Your task to perform on an android device: Open display settings Image 0: 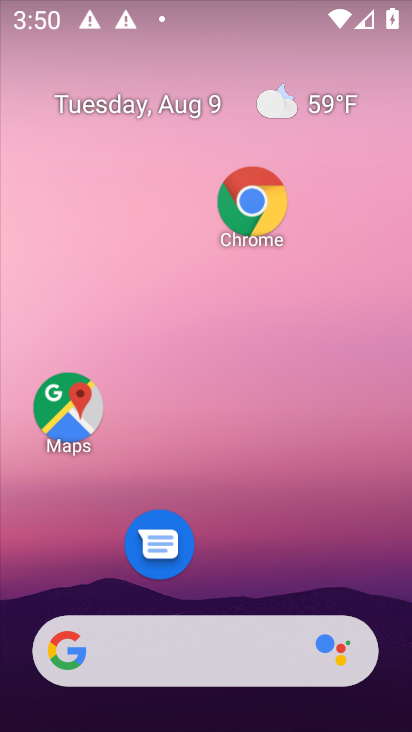
Step 0: drag from (167, 607) to (190, 291)
Your task to perform on an android device: Open display settings Image 1: 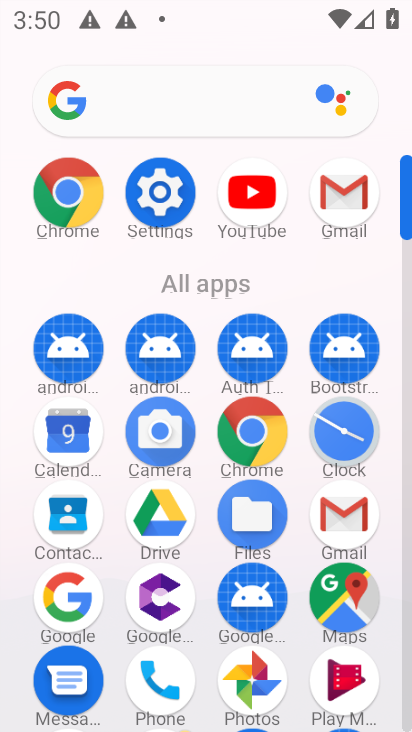
Step 1: click (150, 200)
Your task to perform on an android device: Open display settings Image 2: 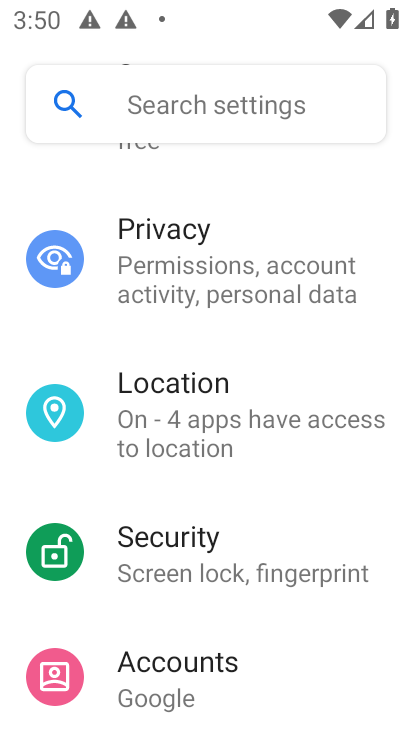
Step 2: drag from (153, 389) to (154, 266)
Your task to perform on an android device: Open display settings Image 3: 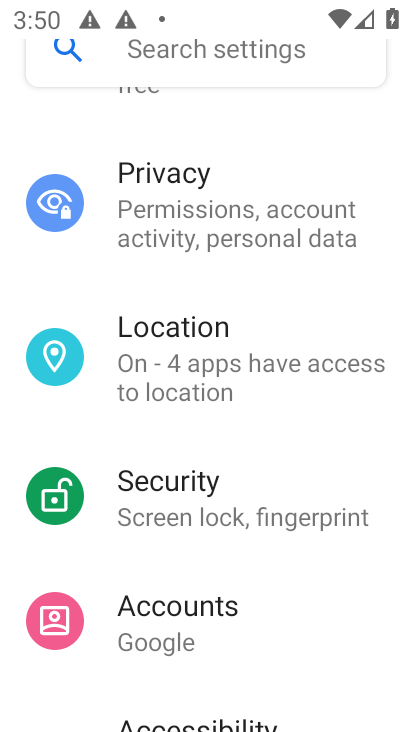
Step 3: drag from (187, 633) to (185, 317)
Your task to perform on an android device: Open display settings Image 4: 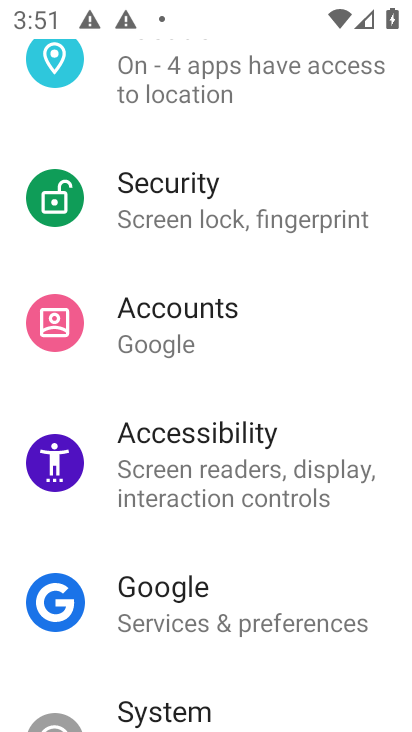
Step 4: drag from (205, 180) to (231, 611)
Your task to perform on an android device: Open display settings Image 5: 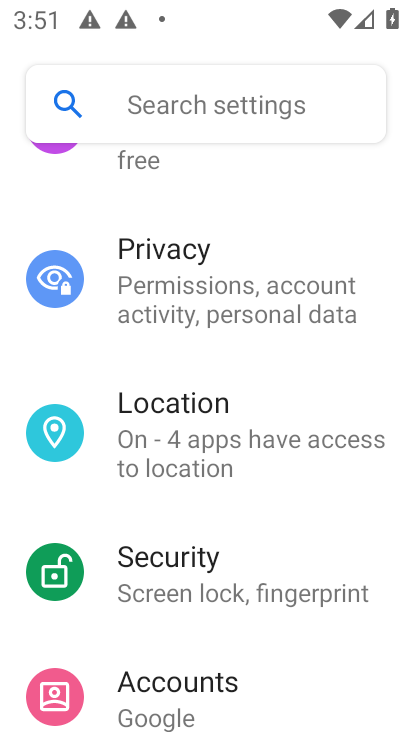
Step 5: drag from (216, 155) to (236, 557)
Your task to perform on an android device: Open display settings Image 6: 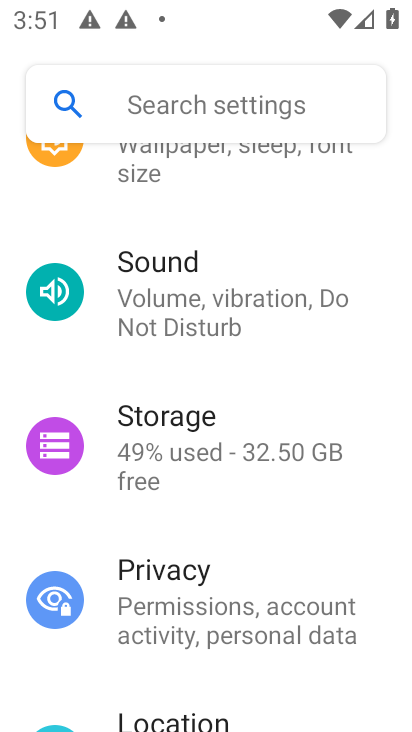
Step 6: drag from (233, 183) to (249, 551)
Your task to perform on an android device: Open display settings Image 7: 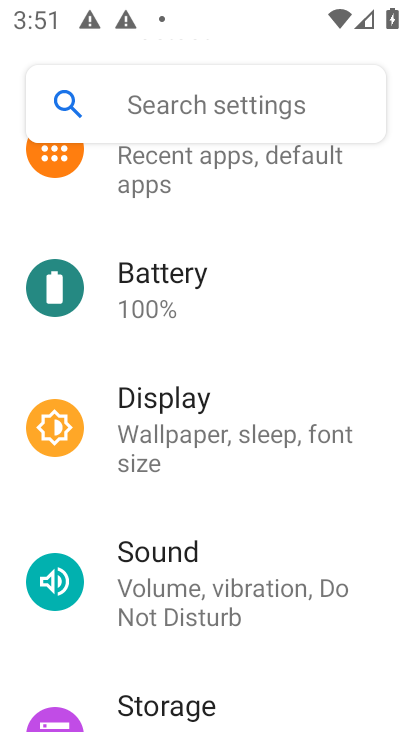
Step 7: drag from (181, 208) to (185, 581)
Your task to perform on an android device: Open display settings Image 8: 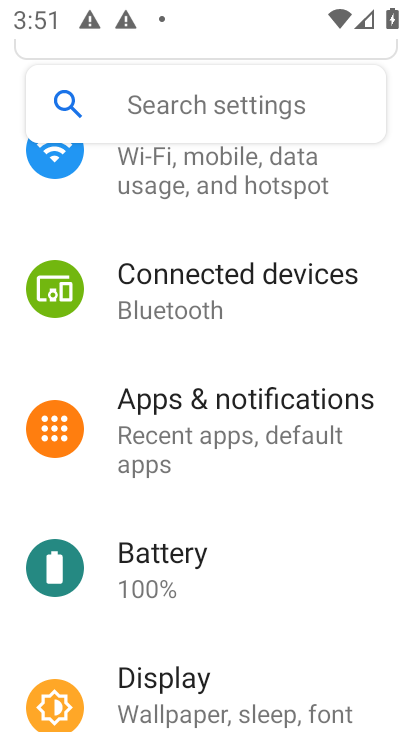
Step 8: drag from (162, 221) to (167, 596)
Your task to perform on an android device: Open display settings Image 9: 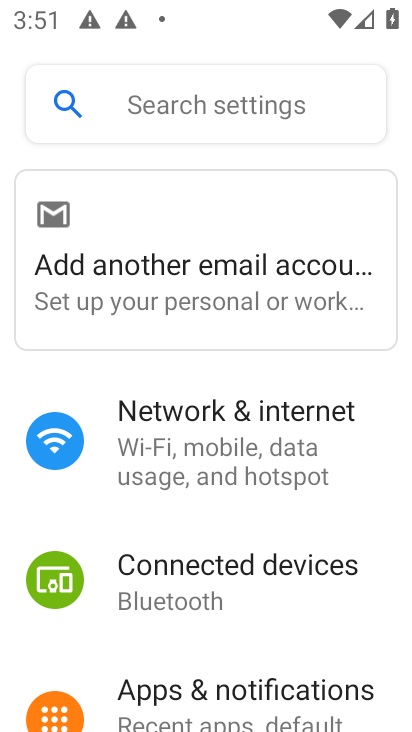
Step 9: drag from (167, 674) to (180, 363)
Your task to perform on an android device: Open display settings Image 10: 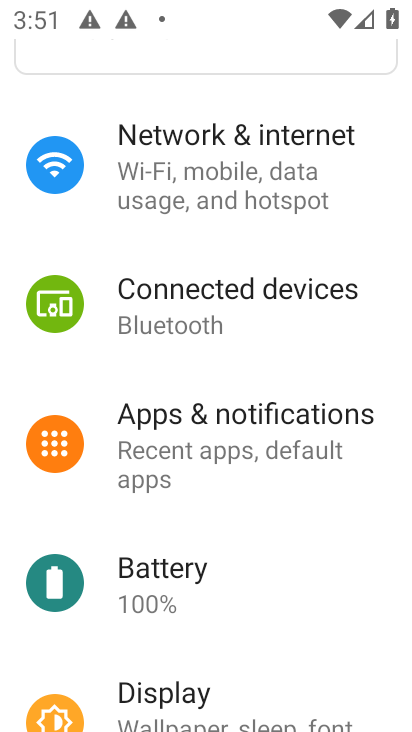
Step 10: click (176, 696)
Your task to perform on an android device: Open display settings Image 11: 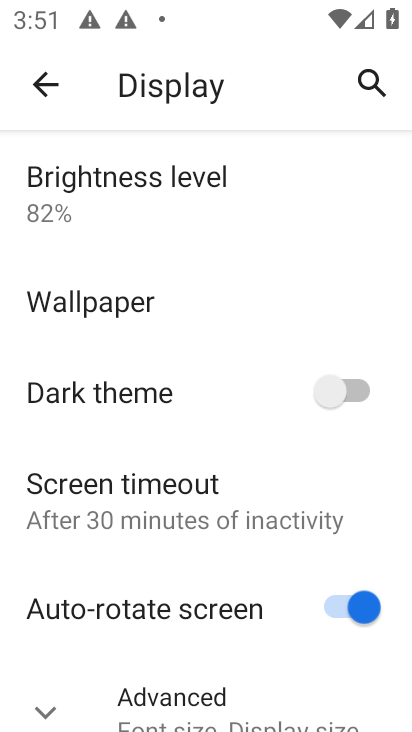
Step 11: drag from (200, 702) to (198, 345)
Your task to perform on an android device: Open display settings Image 12: 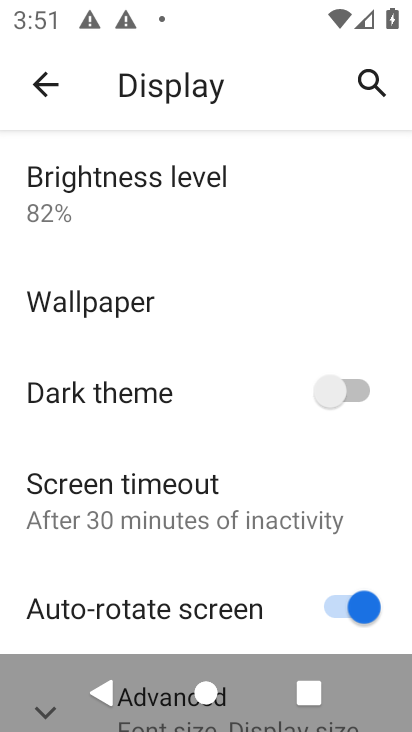
Step 12: drag from (168, 605) to (197, 236)
Your task to perform on an android device: Open display settings Image 13: 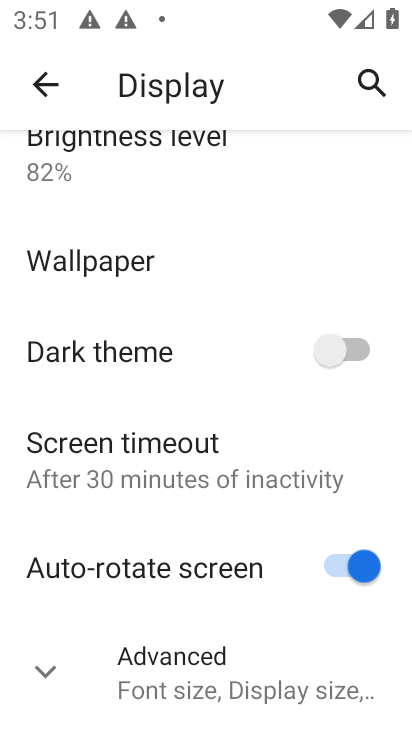
Step 13: click (159, 658)
Your task to perform on an android device: Open display settings Image 14: 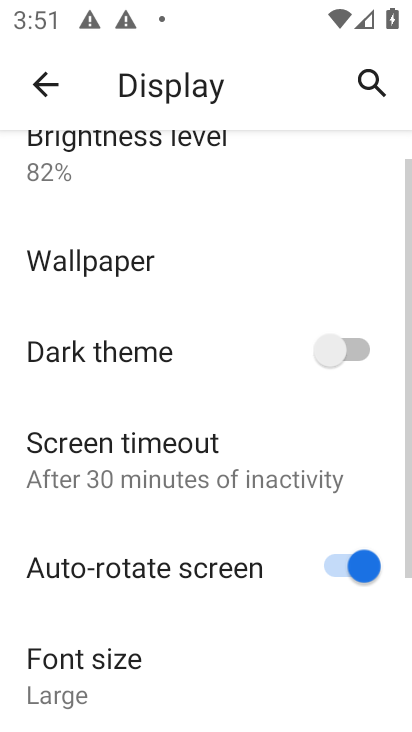
Step 14: task complete